Your task to perform on an android device: What's the weather going to be this weekend? Image 0: 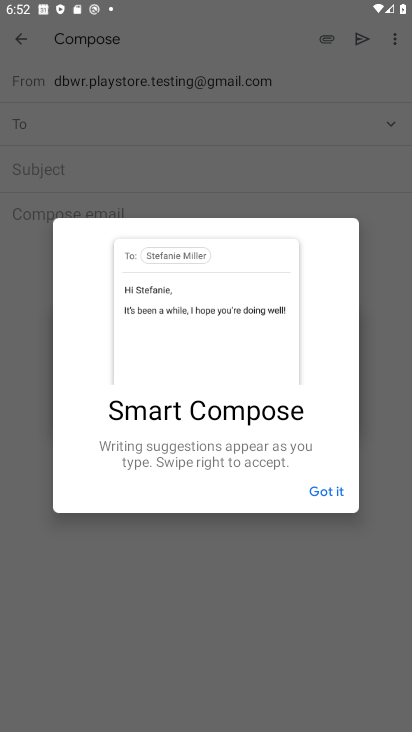
Step 0: press home button
Your task to perform on an android device: What's the weather going to be this weekend? Image 1: 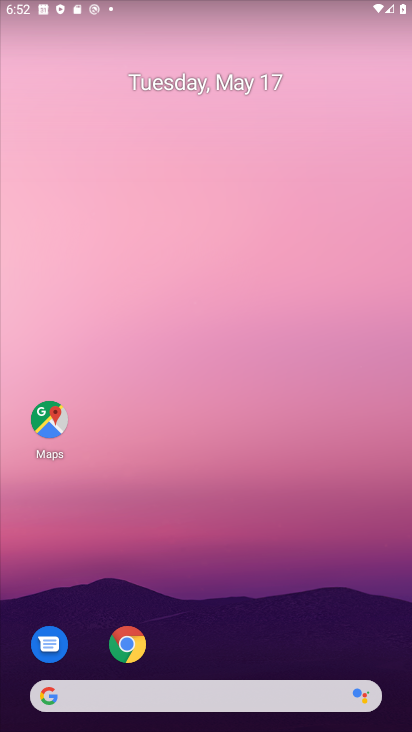
Step 1: drag from (305, 631) to (342, 120)
Your task to perform on an android device: What's the weather going to be this weekend? Image 2: 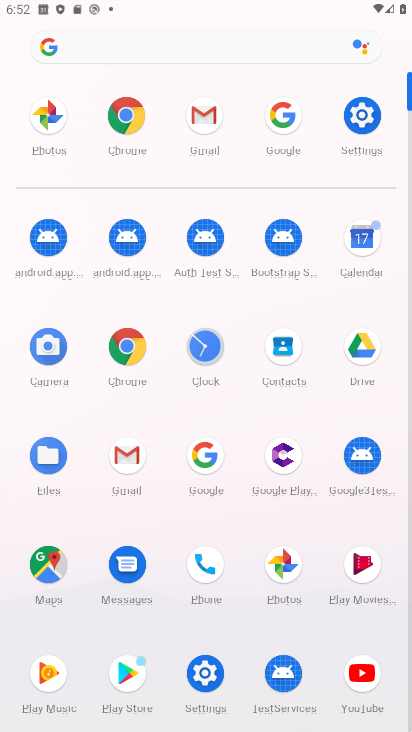
Step 2: click (275, 119)
Your task to perform on an android device: What's the weather going to be this weekend? Image 3: 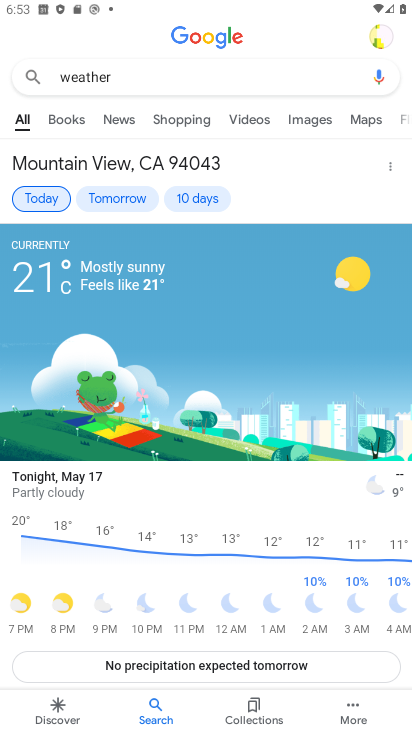
Step 3: press back button
Your task to perform on an android device: What's the weather going to be this weekend? Image 4: 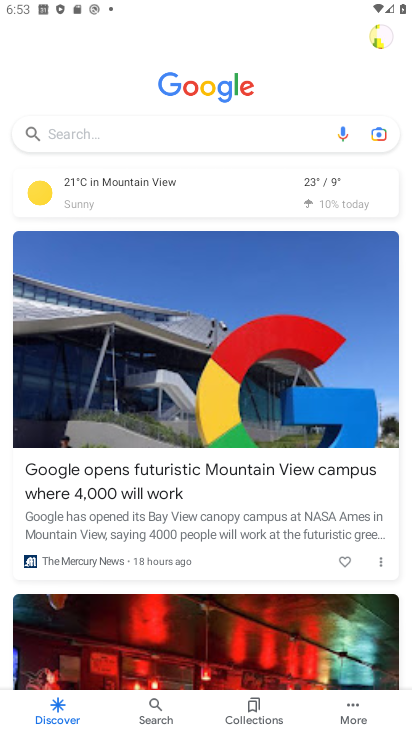
Step 4: click (151, 133)
Your task to perform on an android device: What's the weather going to be this weekend? Image 5: 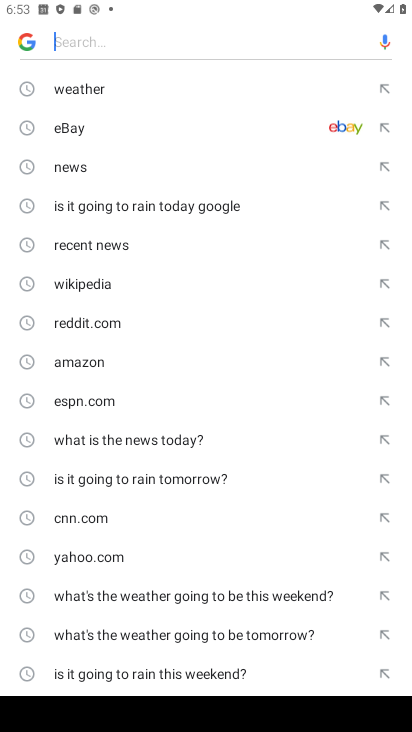
Step 5: click (251, 598)
Your task to perform on an android device: What's the weather going to be this weekend? Image 6: 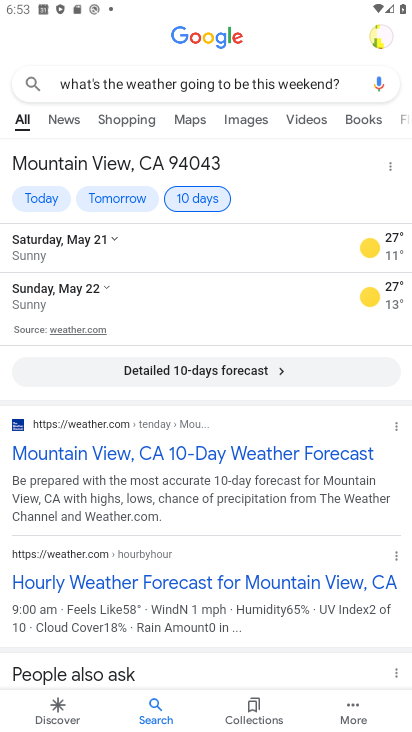
Step 6: task complete